Your task to perform on an android device: What is the news today? Image 0: 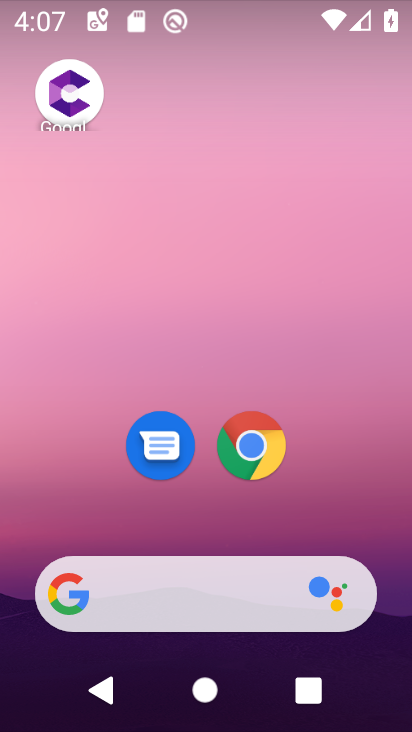
Step 0: click (218, 595)
Your task to perform on an android device: What is the news today? Image 1: 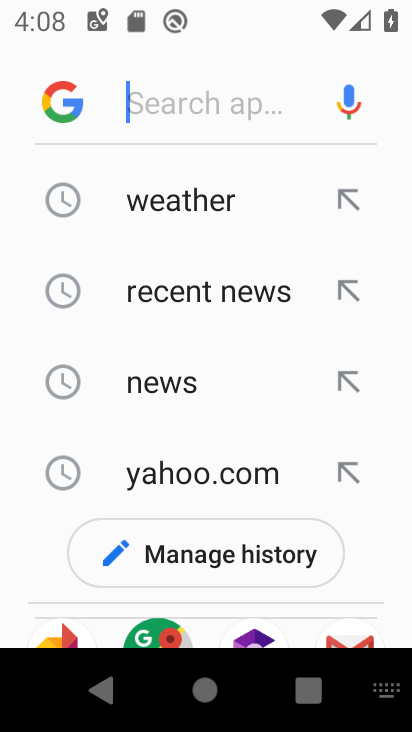
Step 1: type "news today"
Your task to perform on an android device: What is the news today? Image 2: 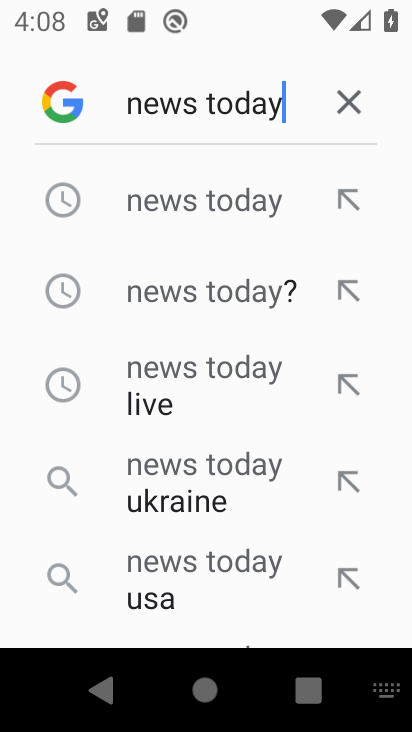
Step 2: click (176, 302)
Your task to perform on an android device: What is the news today? Image 3: 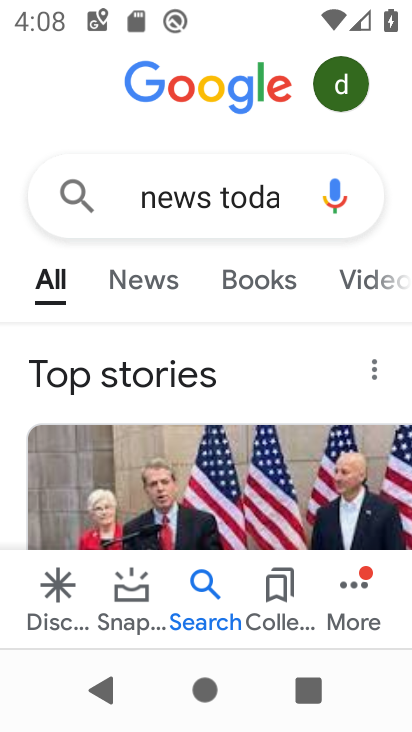
Step 3: task complete